Your task to perform on an android device: Open Google Image 0: 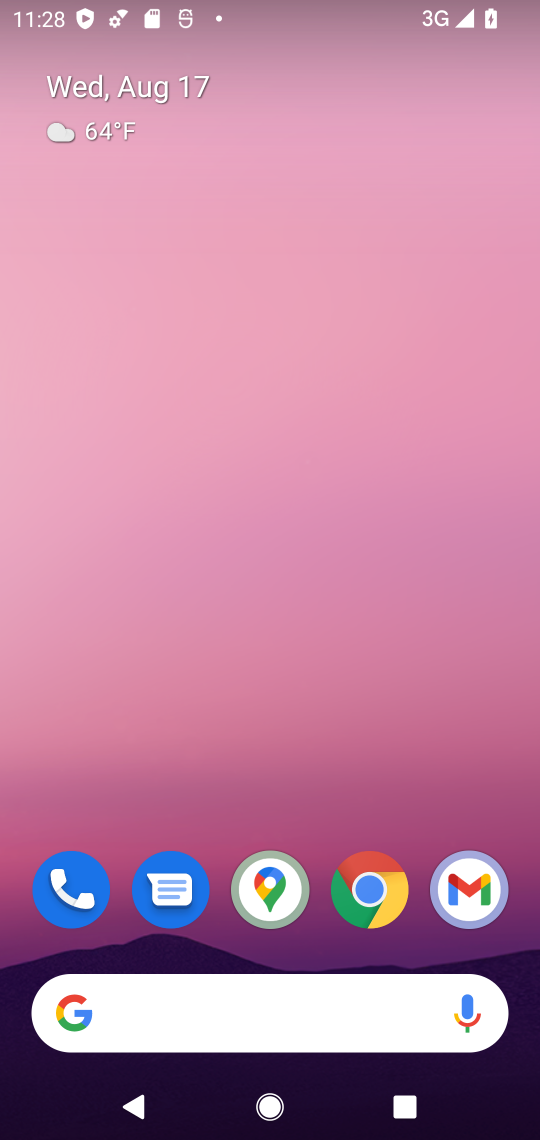
Step 0: click (249, 1022)
Your task to perform on an android device: Open Google Image 1: 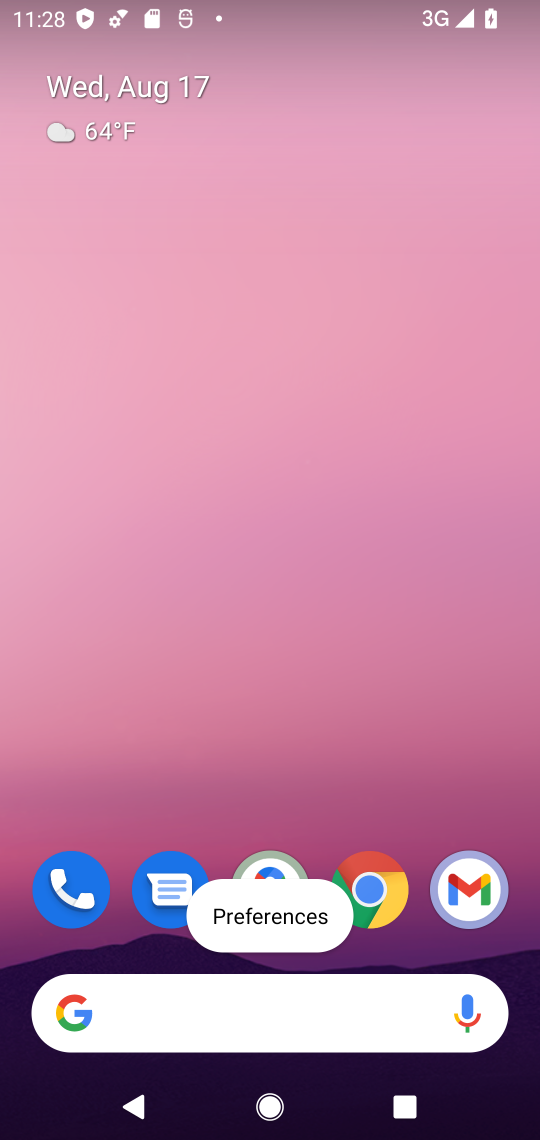
Step 1: click (249, 1022)
Your task to perform on an android device: Open Google Image 2: 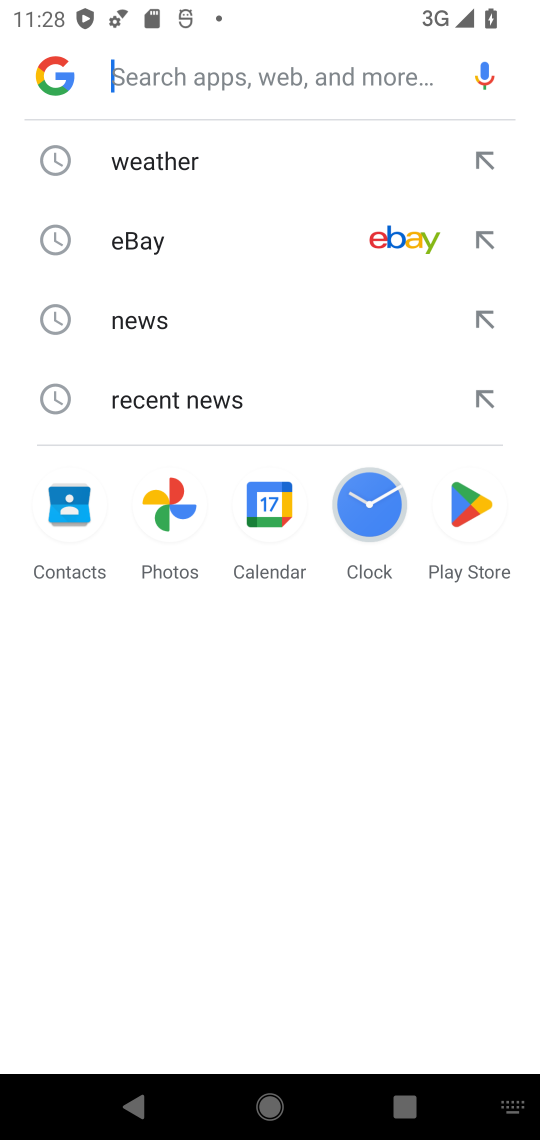
Step 2: click (57, 89)
Your task to perform on an android device: Open Google Image 3: 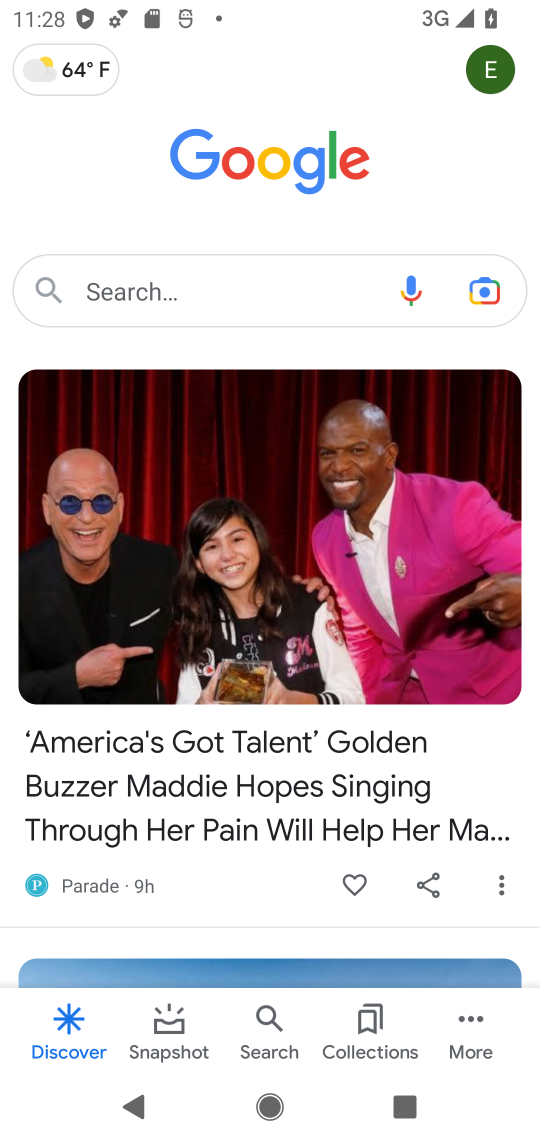
Step 3: task complete